Your task to perform on an android device: Is it going to rain tomorrow? Image 0: 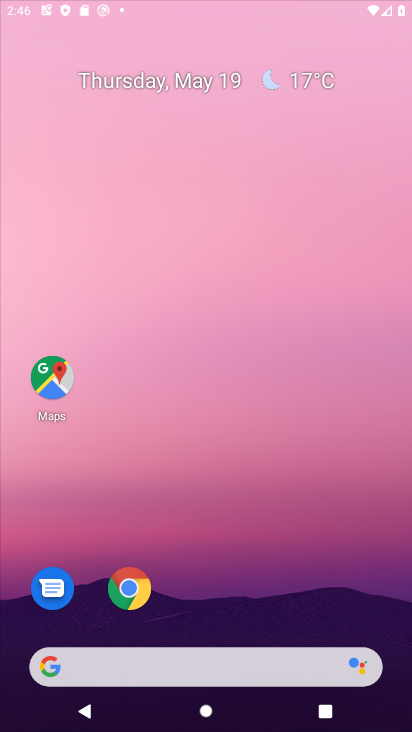
Step 0: click (396, 570)
Your task to perform on an android device: Is it going to rain tomorrow? Image 1: 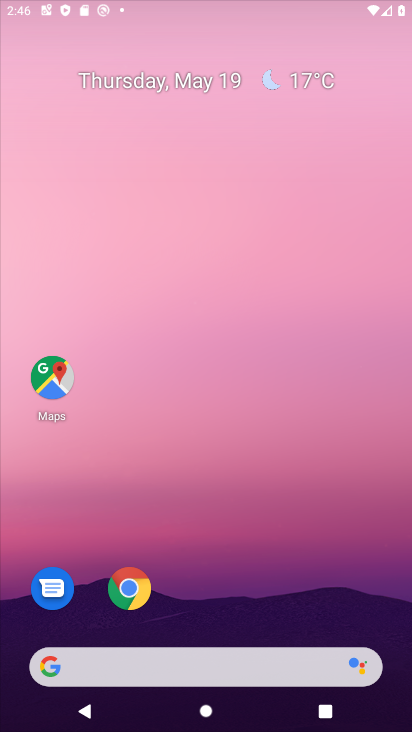
Step 1: drag from (281, 596) to (257, 193)
Your task to perform on an android device: Is it going to rain tomorrow? Image 2: 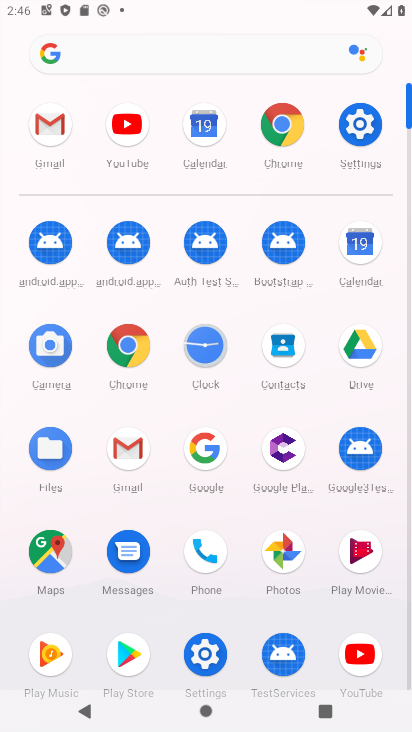
Step 2: press home button
Your task to perform on an android device: Is it going to rain tomorrow? Image 3: 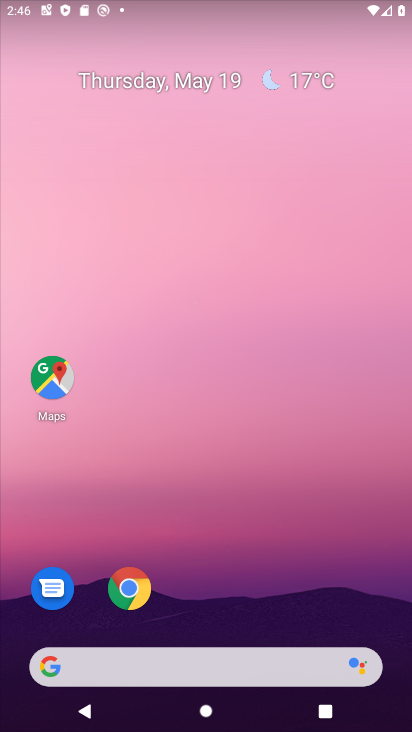
Step 3: click (310, 76)
Your task to perform on an android device: Is it going to rain tomorrow? Image 4: 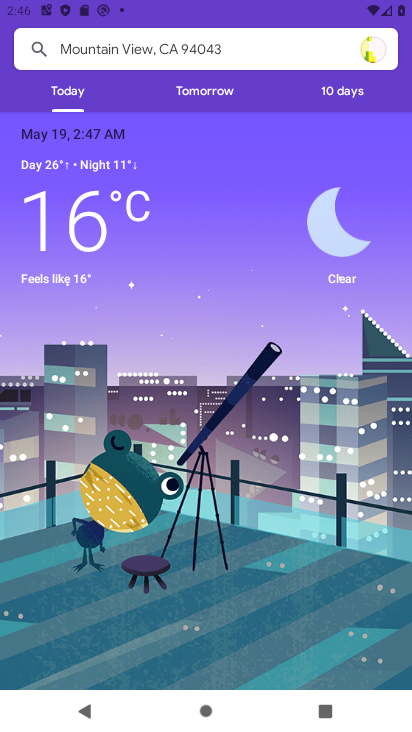
Step 4: click (203, 92)
Your task to perform on an android device: Is it going to rain tomorrow? Image 5: 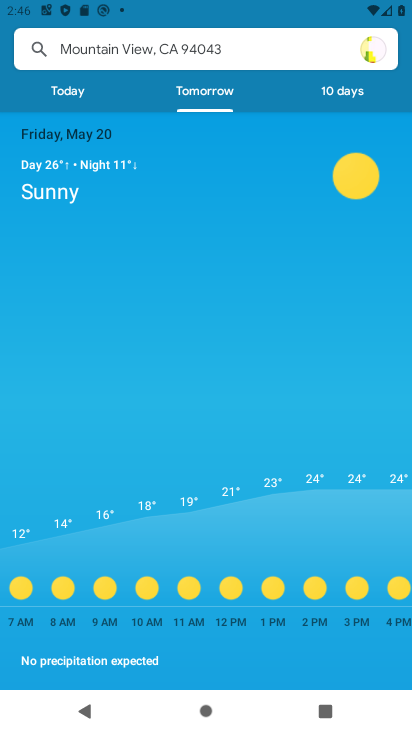
Step 5: task complete